Your task to perform on an android device: Open my contact list Image 0: 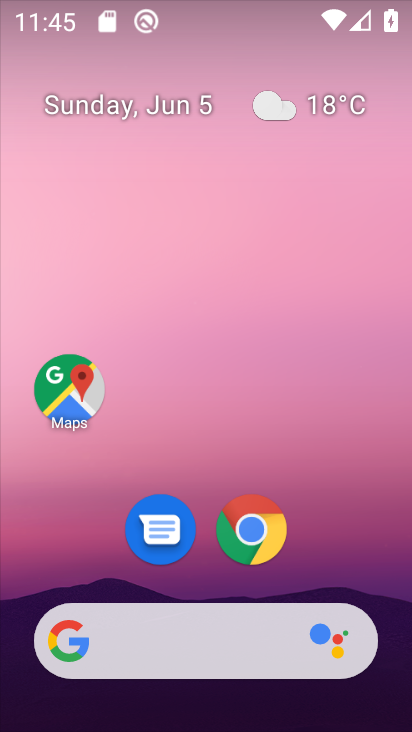
Step 0: drag from (330, 544) to (314, 18)
Your task to perform on an android device: Open my contact list Image 1: 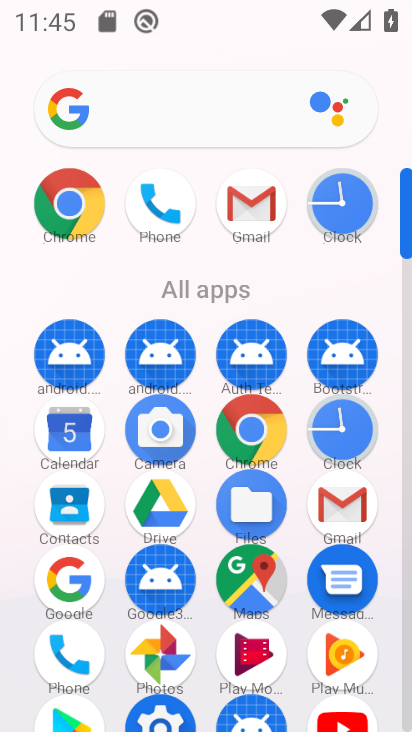
Step 1: click (56, 500)
Your task to perform on an android device: Open my contact list Image 2: 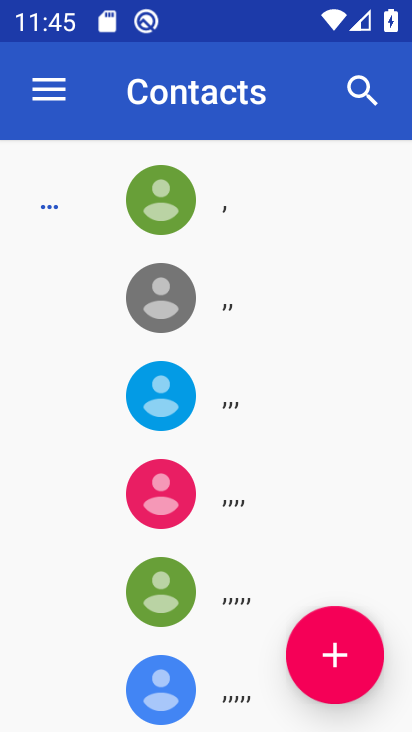
Step 2: task complete